Your task to perform on an android device: Open Google Image 0: 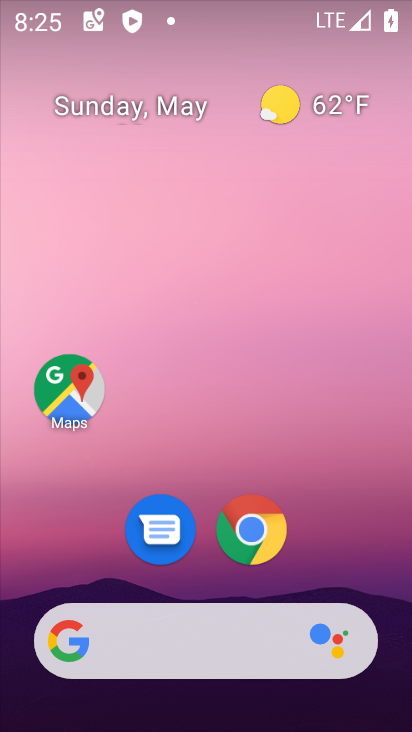
Step 0: drag from (196, 576) to (270, 7)
Your task to perform on an android device: Open Google Image 1: 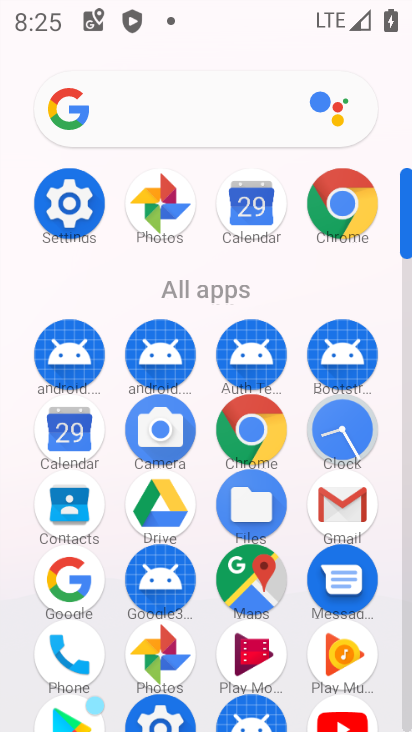
Step 1: click (72, 580)
Your task to perform on an android device: Open Google Image 2: 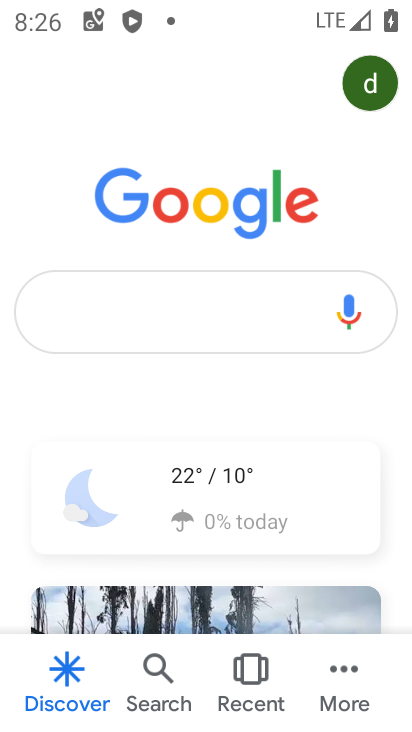
Step 2: task complete